Your task to perform on an android device: Go to ESPN.com Image 0: 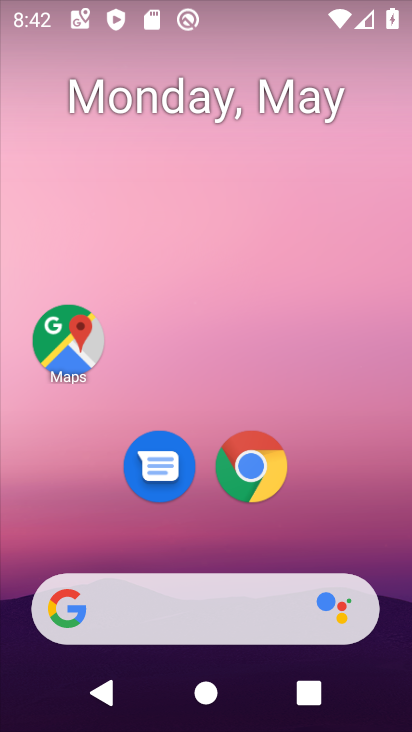
Step 0: drag from (252, 644) to (250, 124)
Your task to perform on an android device: Go to ESPN.com Image 1: 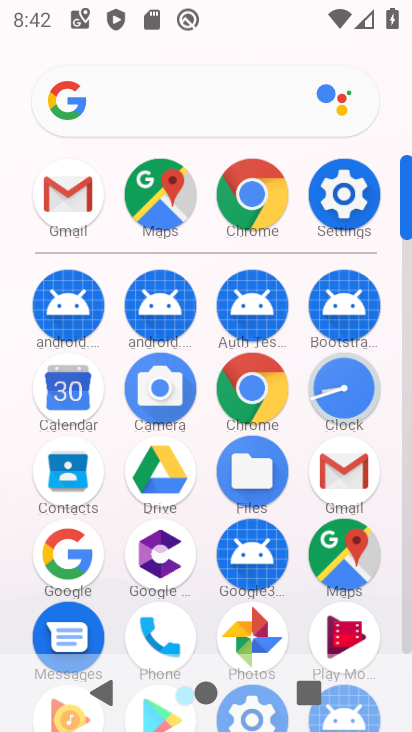
Step 1: click (252, 211)
Your task to perform on an android device: Go to ESPN.com Image 2: 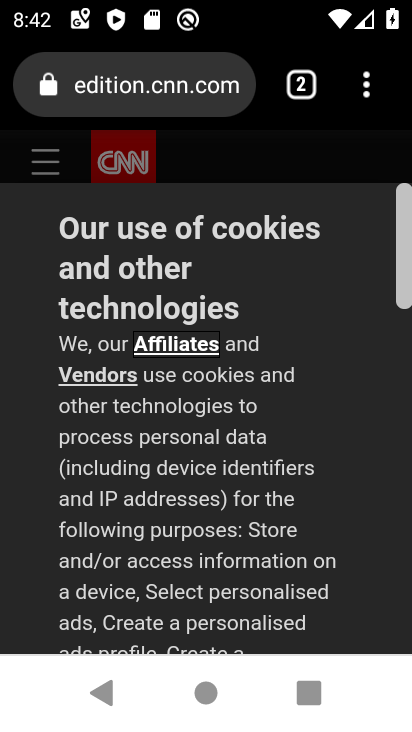
Step 2: click (146, 86)
Your task to perform on an android device: Go to ESPN.com Image 3: 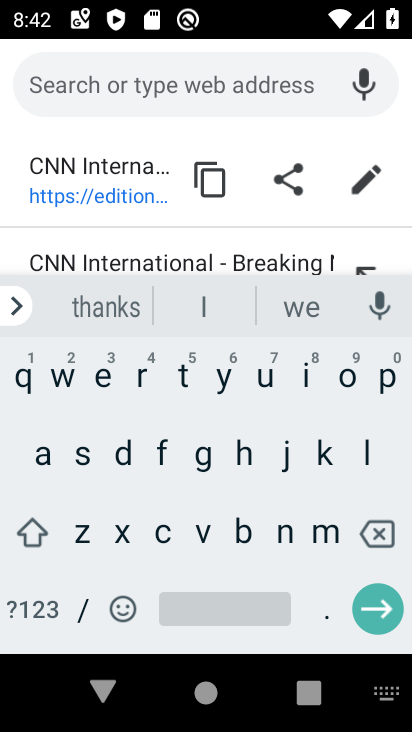
Step 3: click (107, 378)
Your task to perform on an android device: Go to ESPN.com Image 4: 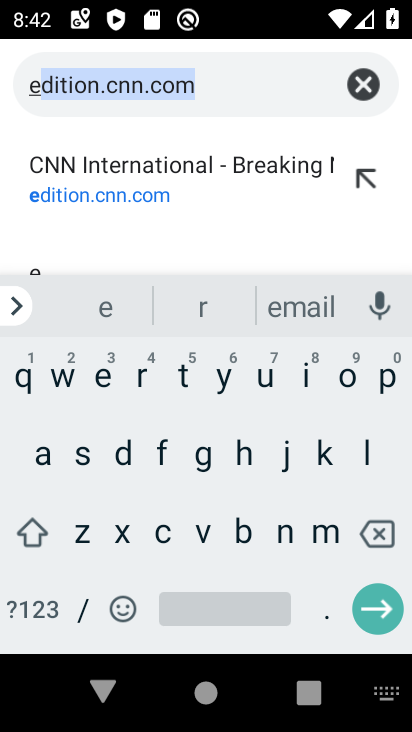
Step 4: click (85, 458)
Your task to perform on an android device: Go to ESPN.com Image 5: 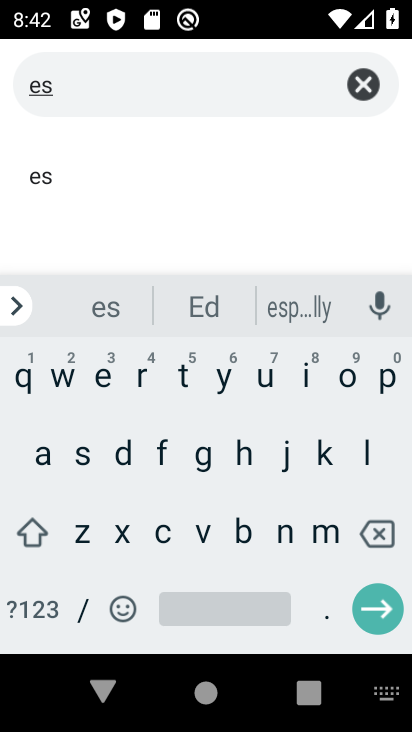
Step 5: click (395, 379)
Your task to perform on an android device: Go to ESPN.com Image 6: 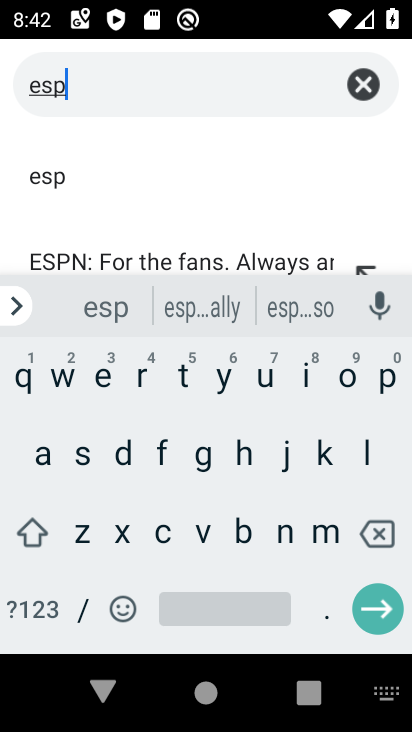
Step 6: click (123, 254)
Your task to perform on an android device: Go to ESPN.com Image 7: 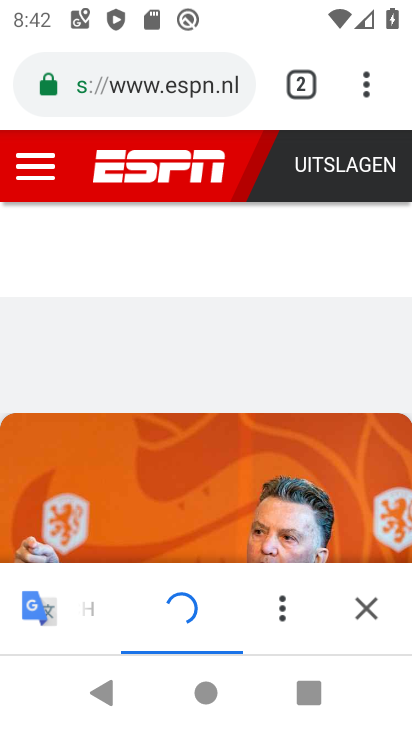
Step 7: task complete